Your task to perform on an android device: Open ESPN.com Image 0: 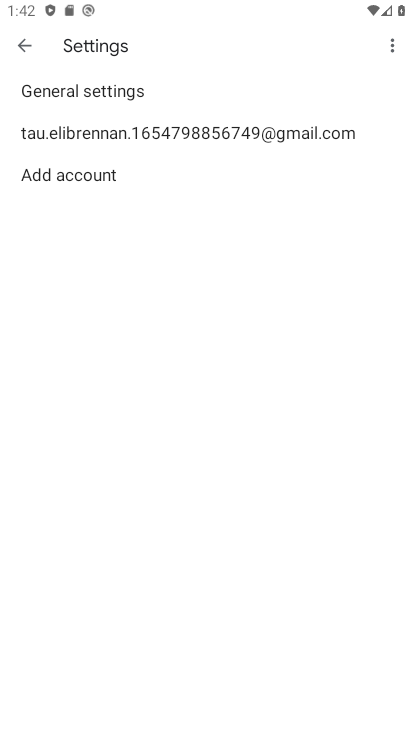
Step 0: press home button
Your task to perform on an android device: Open ESPN.com Image 1: 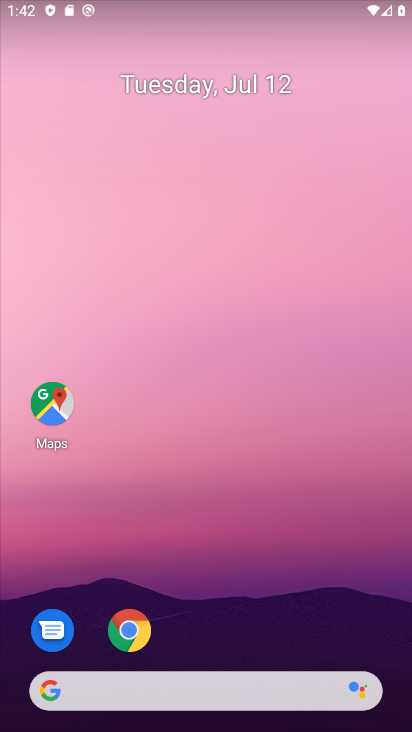
Step 1: click (131, 624)
Your task to perform on an android device: Open ESPN.com Image 2: 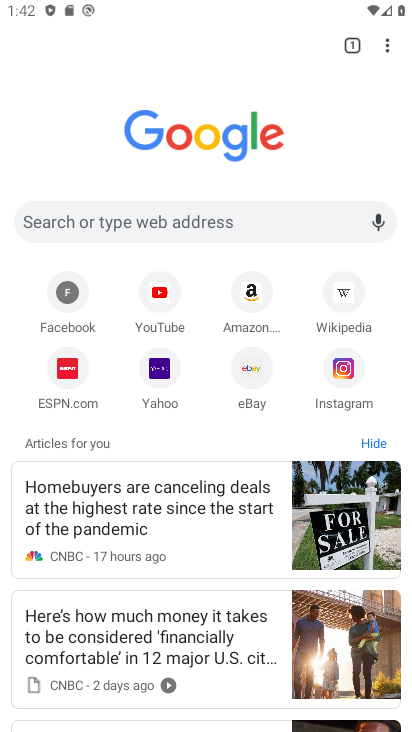
Step 2: click (161, 216)
Your task to perform on an android device: Open ESPN.com Image 3: 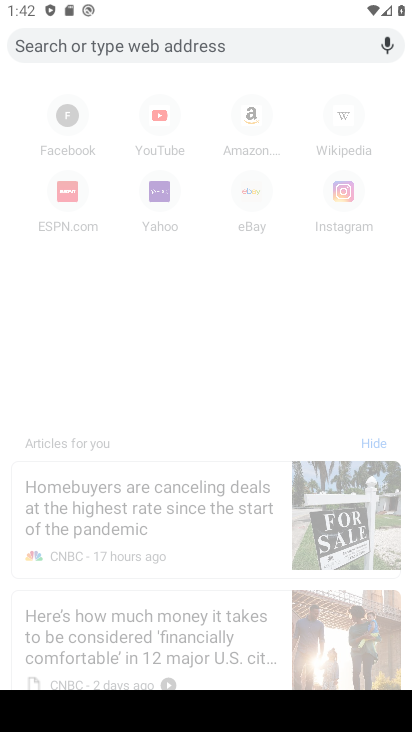
Step 3: type "ESPN.com"
Your task to perform on an android device: Open ESPN.com Image 4: 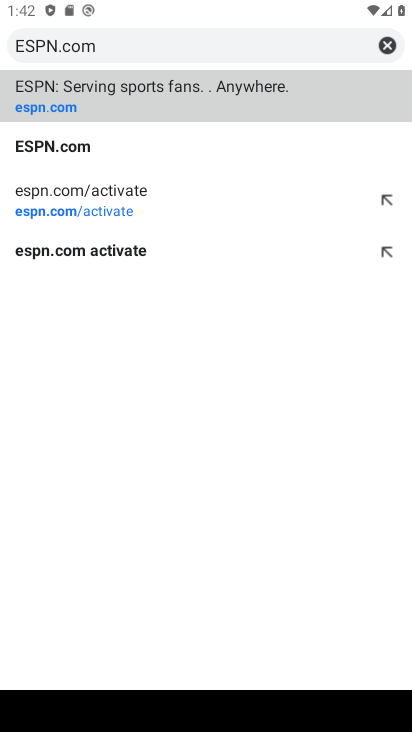
Step 4: click (60, 140)
Your task to perform on an android device: Open ESPN.com Image 5: 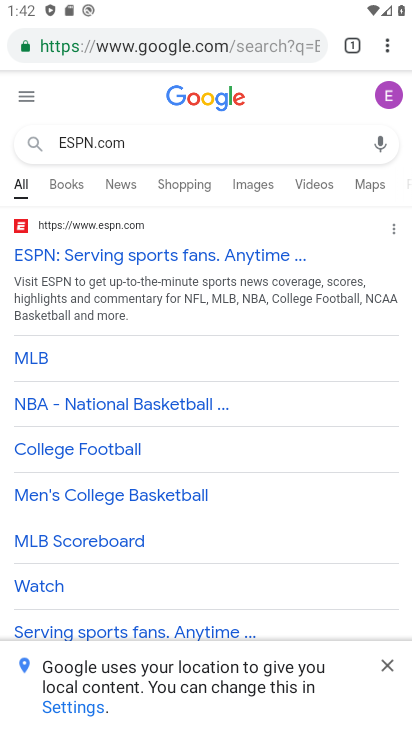
Step 5: task complete